Your task to perform on an android device: What's the weather today? Image 0: 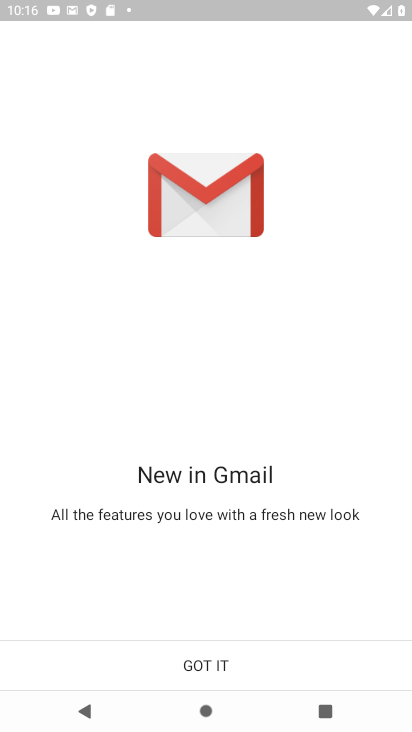
Step 0: press home button
Your task to perform on an android device: What's the weather today? Image 1: 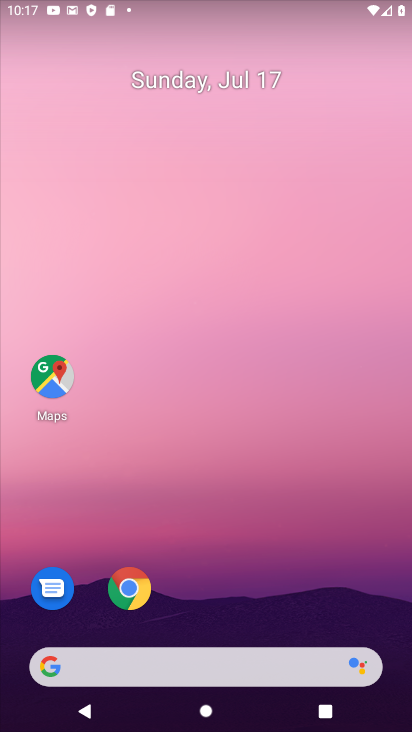
Step 1: click (119, 567)
Your task to perform on an android device: What's the weather today? Image 2: 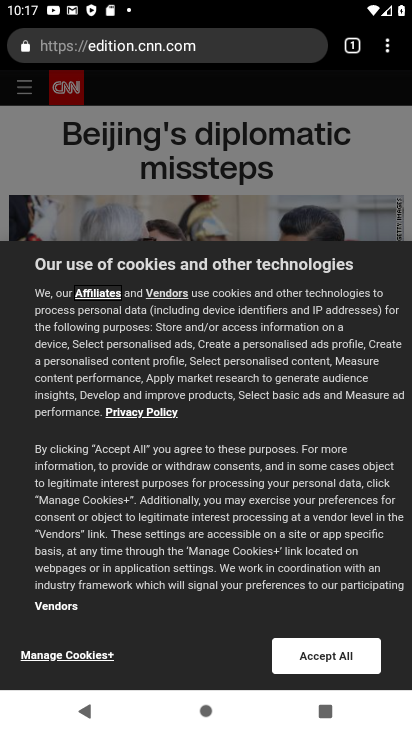
Step 2: click (222, 51)
Your task to perform on an android device: What's the weather today? Image 3: 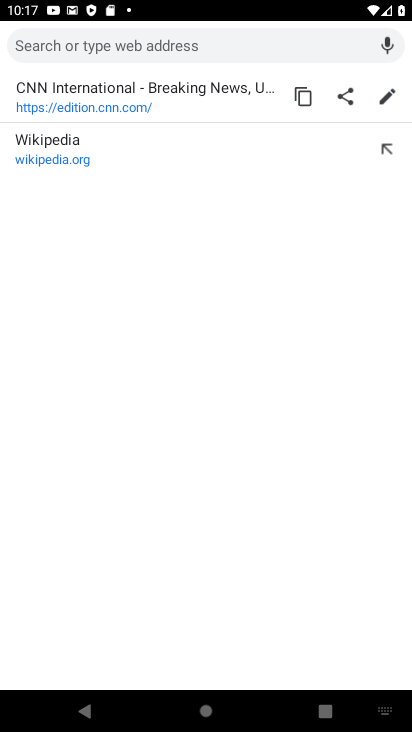
Step 3: type "What's the weather today?"
Your task to perform on an android device: What's the weather today? Image 4: 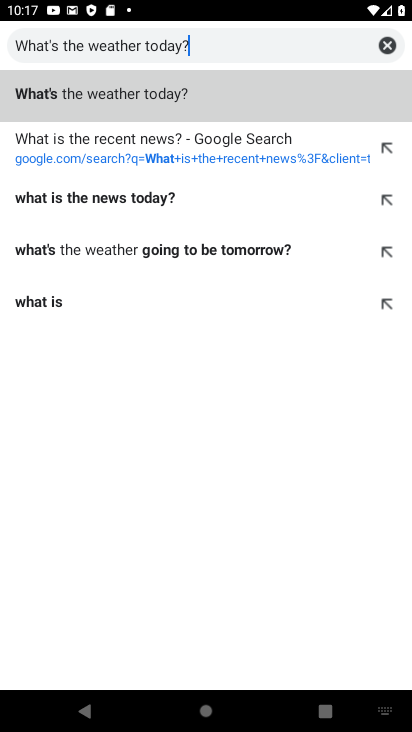
Step 4: type ""
Your task to perform on an android device: What's the weather today? Image 5: 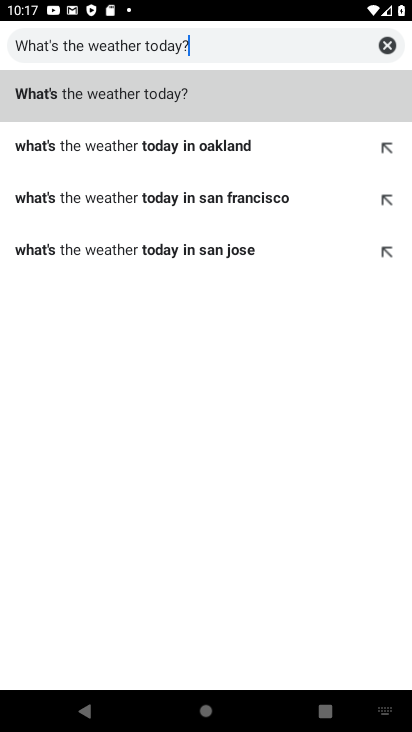
Step 5: click (339, 108)
Your task to perform on an android device: What's the weather today? Image 6: 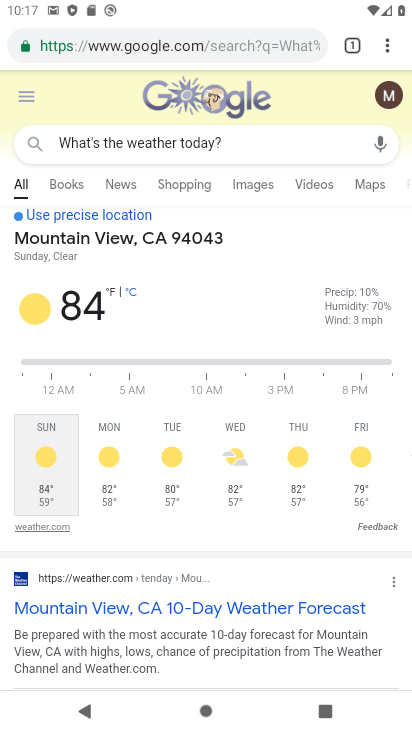
Step 6: task complete